Your task to perform on an android device: Go to Google Image 0: 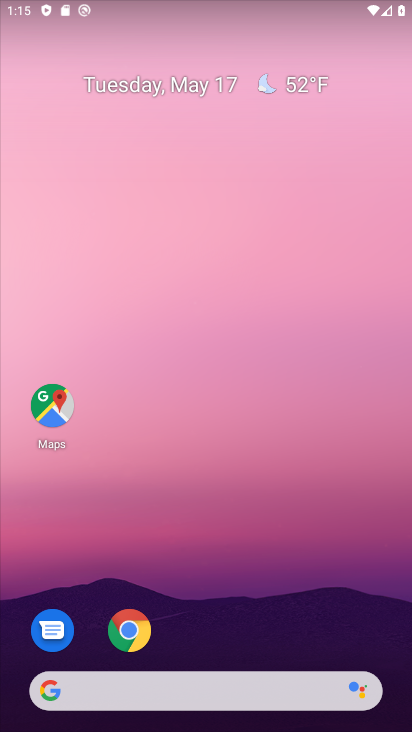
Step 0: drag from (221, 638) to (289, 52)
Your task to perform on an android device: Go to Google Image 1: 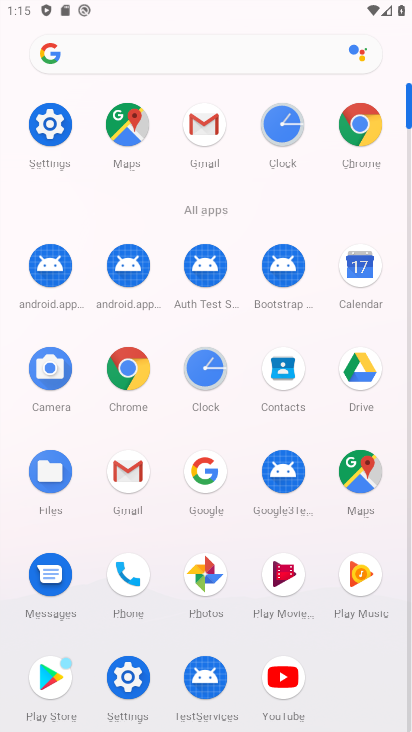
Step 1: click (206, 480)
Your task to perform on an android device: Go to Google Image 2: 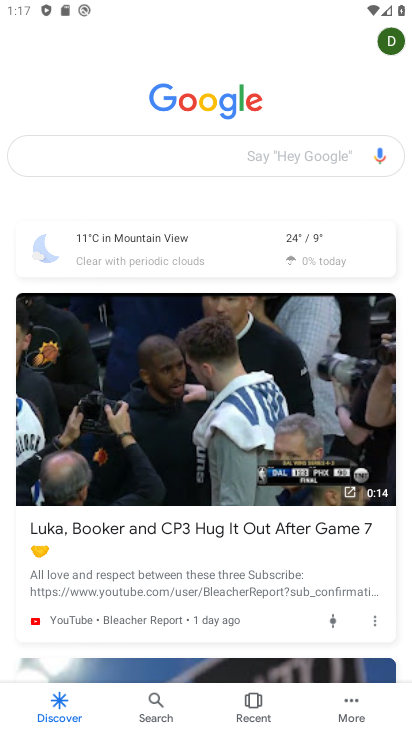
Step 2: task complete